Your task to perform on an android device: change alarm snooze length Image 0: 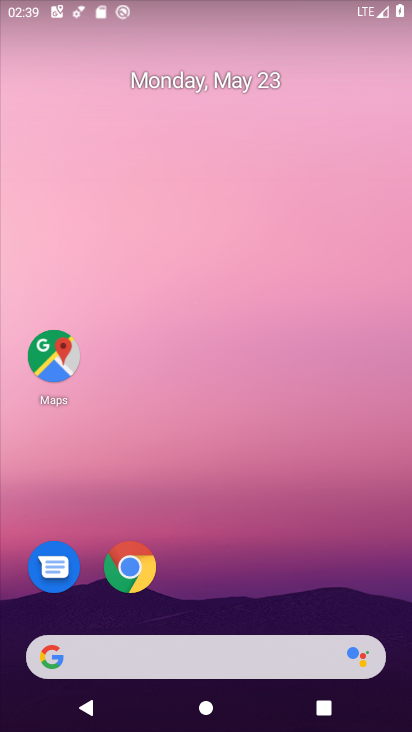
Step 0: drag from (237, 569) to (188, 248)
Your task to perform on an android device: change alarm snooze length Image 1: 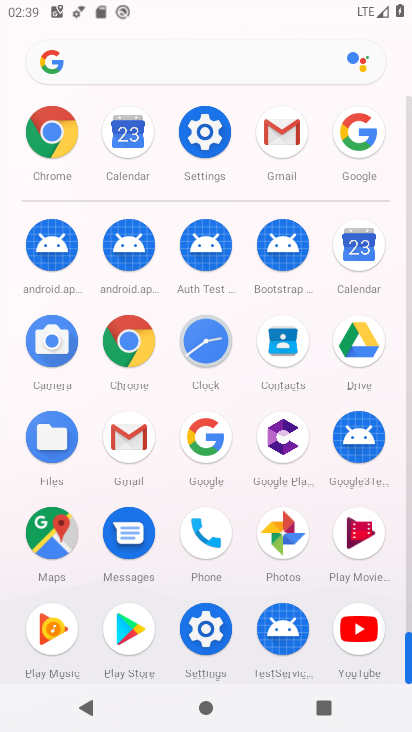
Step 1: click (196, 342)
Your task to perform on an android device: change alarm snooze length Image 2: 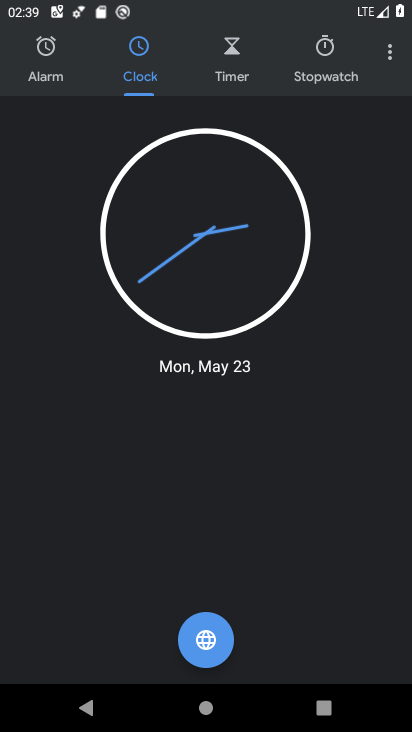
Step 2: click (392, 60)
Your task to perform on an android device: change alarm snooze length Image 3: 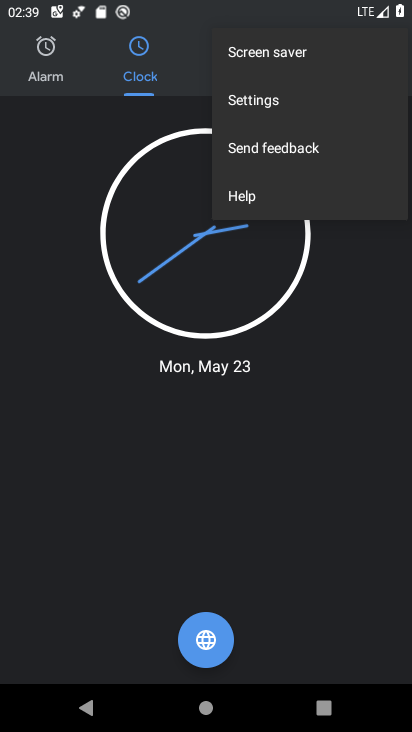
Step 3: click (295, 106)
Your task to perform on an android device: change alarm snooze length Image 4: 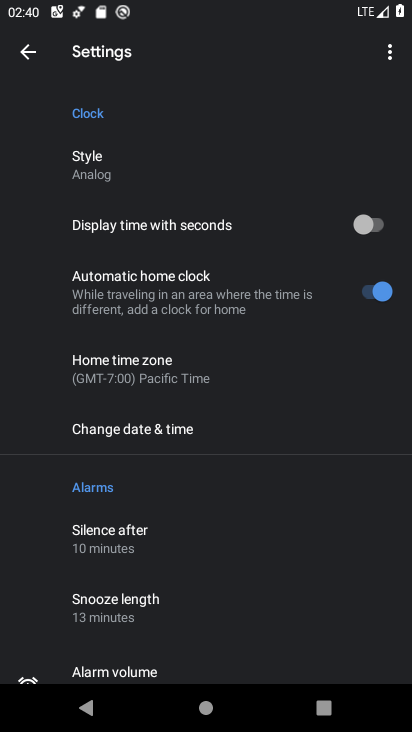
Step 4: click (216, 496)
Your task to perform on an android device: change alarm snooze length Image 5: 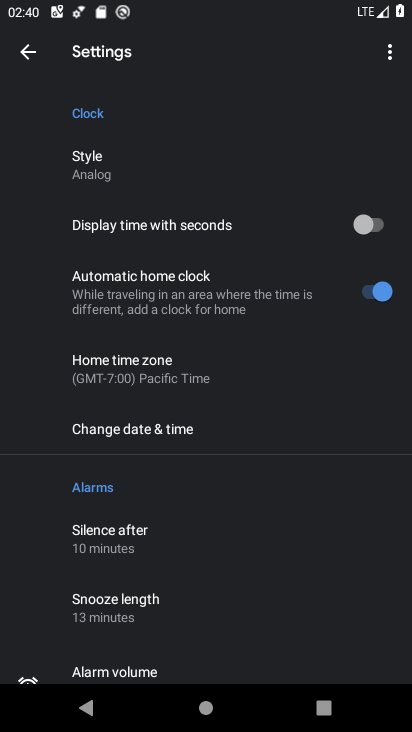
Step 5: click (161, 613)
Your task to perform on an android device: change alarm snooze length Image 6: 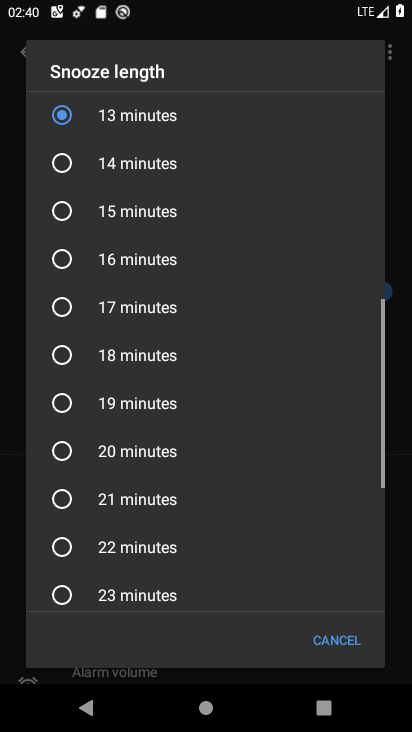
Step 6: click (127, 212)
Your task to perform on an android device: change alarm snooze length Image 7: 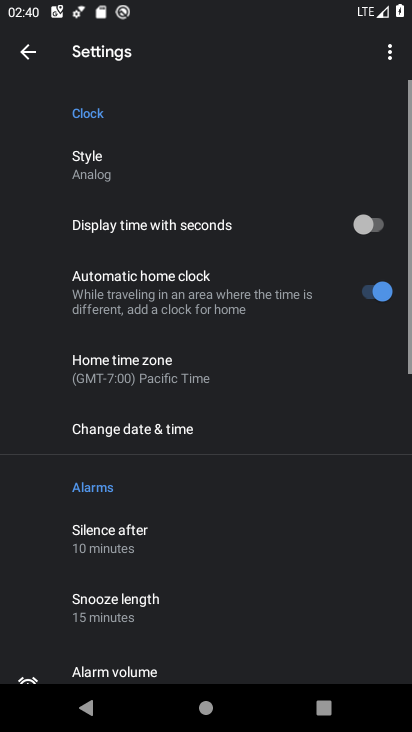
Step 7: task complete